Your task to perform on an android device: Open battery settings Image 0: 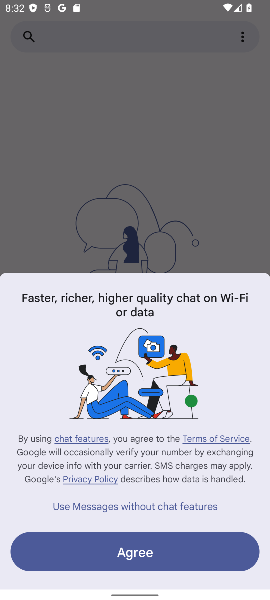
Step 0: press home button
Your task to perform on an android device: Open battery settings Image 1: 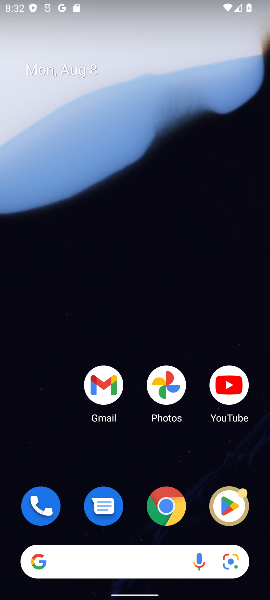
Step 1: drag from (130, 469) to (152, 113)
Your task to perform on an android device: Open battery settings Image 2: 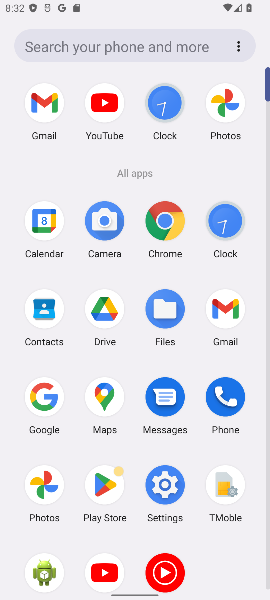
Step 2: drag from (151, 429) to (171, 168)
Your task to perform on an android device: Open battery settings Image 3: 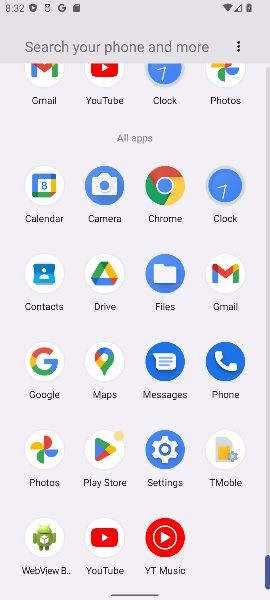
Step 3: drag from (161, 441) to (62, 136)
Your task to perform on an android device: Open battery settings Image 4: 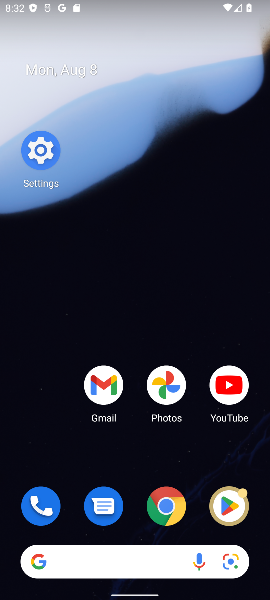
Step 4: click (46, 144)
Your task to perform on an android device: Open battery settings Image 5: 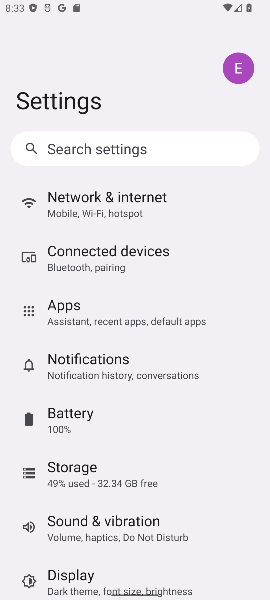
Step 5: click (112, 419)
Your task to perform on an android device: Open battery settings Image 6: 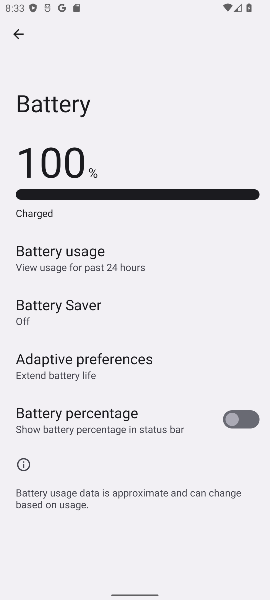
Step 6: task complete